Your task to perform on an android device: Go to Reddit.com Image 0: 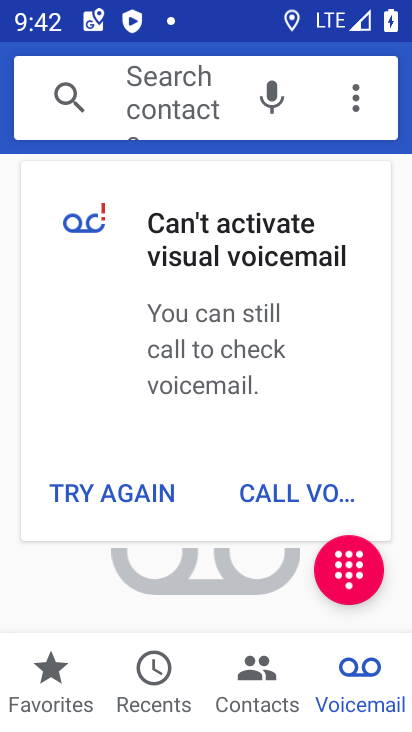
Step 0: press home button
Your task to perform on an android device: Go to Reddit.com Image 1: 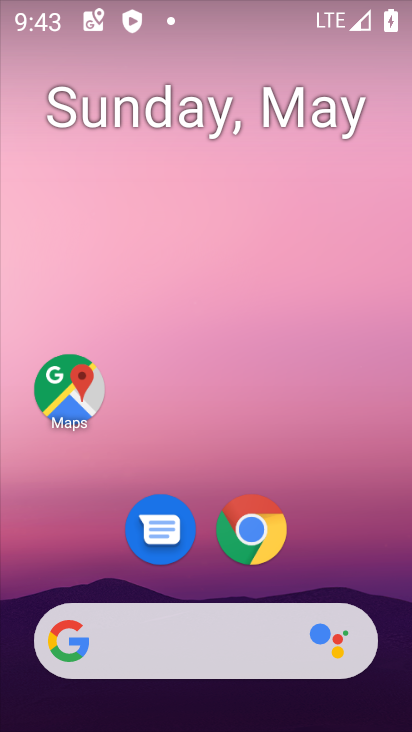
Step 1: click (175, 659)
Your task to perform on an android device: Go to Reddit.com Image 2: 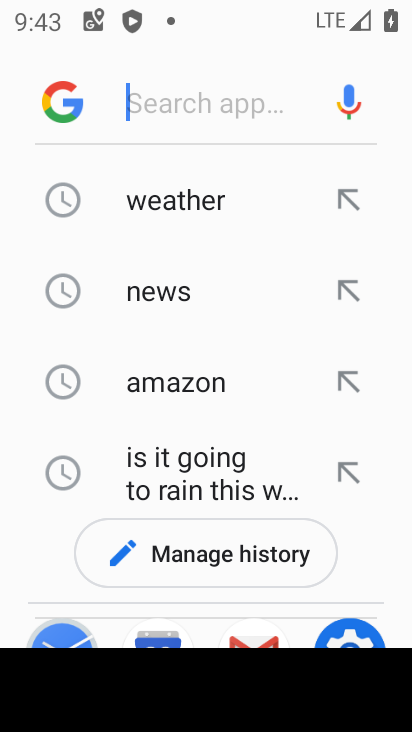
Step 2: type "reddit"
Your task to perform on an android device: Go to Reddit.com Image 3: 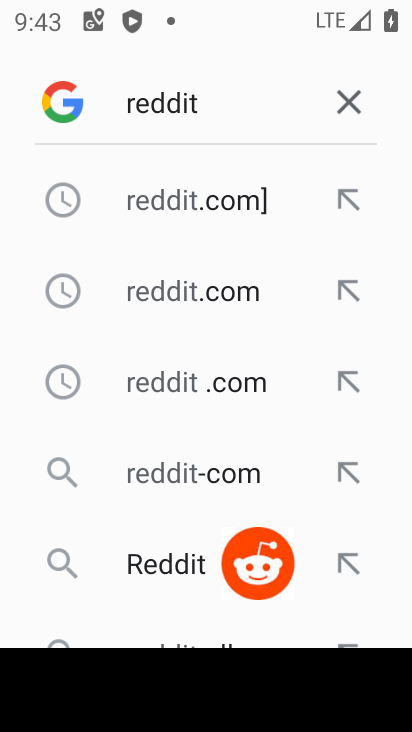
Step 3: click (209, 308)
Your task to perform on an android device: Go to Reddit.com Image 4: 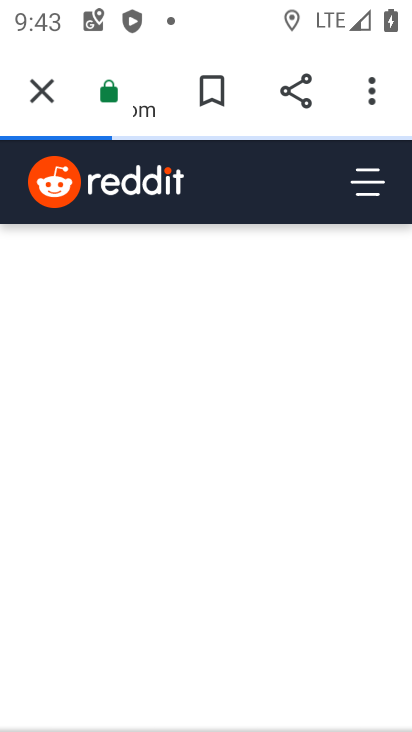
Step 4: task complete